Your task to perform on an android device: Open the calendar and show me this week's events Image 0: 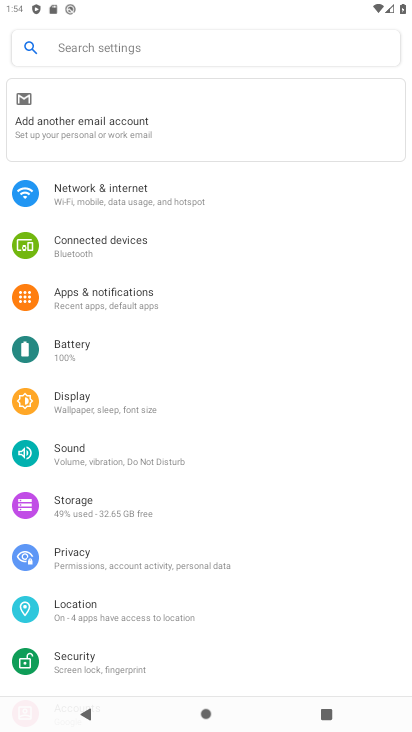
Step 0: press home button
Your task to perform on an android device: Open the calendar and show me this week's events Image 1: 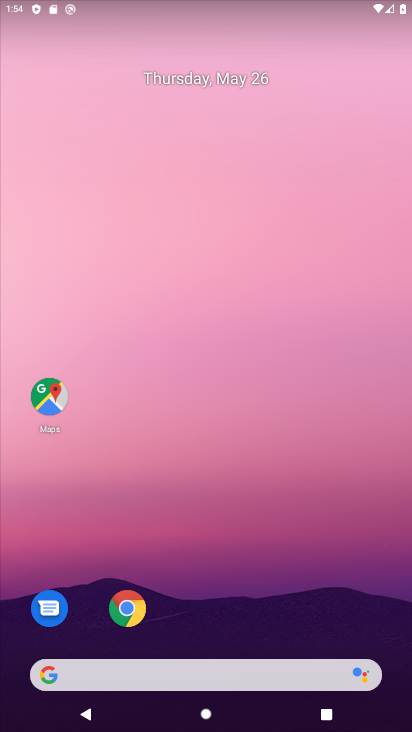
Step 1: drag from (241, 573) to (254, 10)
Your task to perform on an android device: Open the calendar and show me this week's events Image 2: 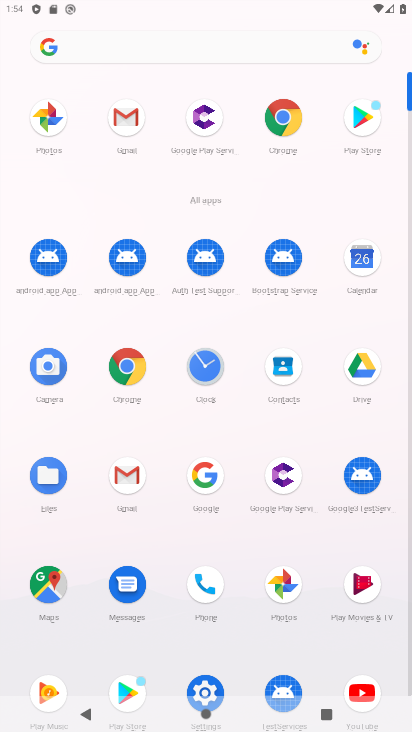
Step 2: click (365, 263)
Your task to perform on an android device: Open the calendar and show me this week's events Image 3: 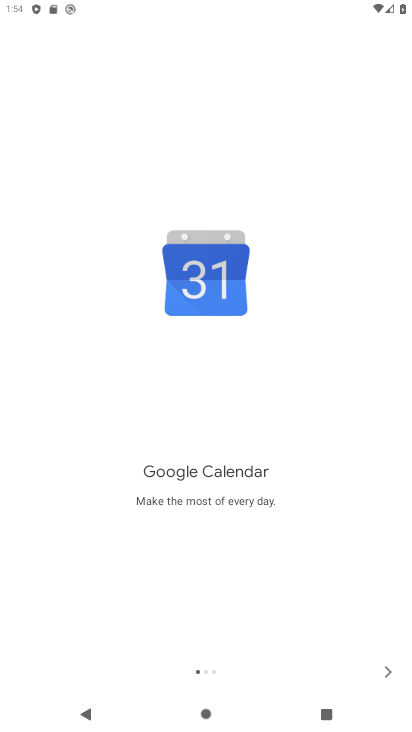
Step 3: click (383, 672)
Your task to perform on an android device: Open the calendar and show me this week's events Image 4: 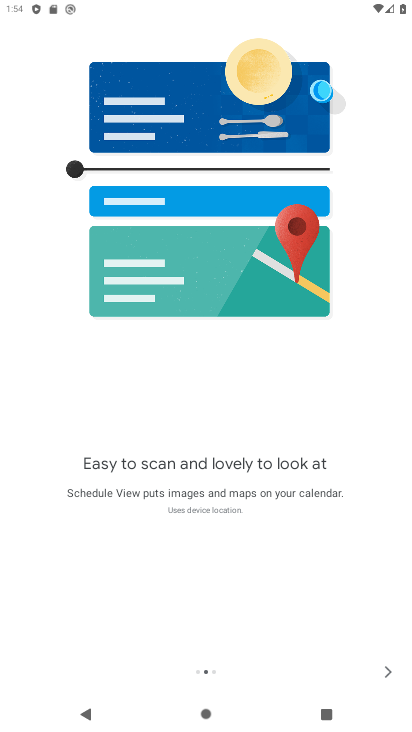
Step 4: click (383, 671)
Your task to perform on an android device: Open the calendar and show me this week's events Image 5: 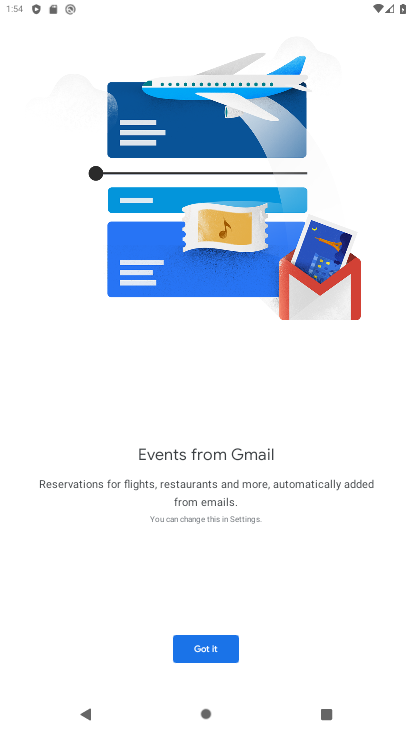
Step 5: click (197, 651)
Your task to perform on an android device: Open the calendar and show me this week's events Image 6: 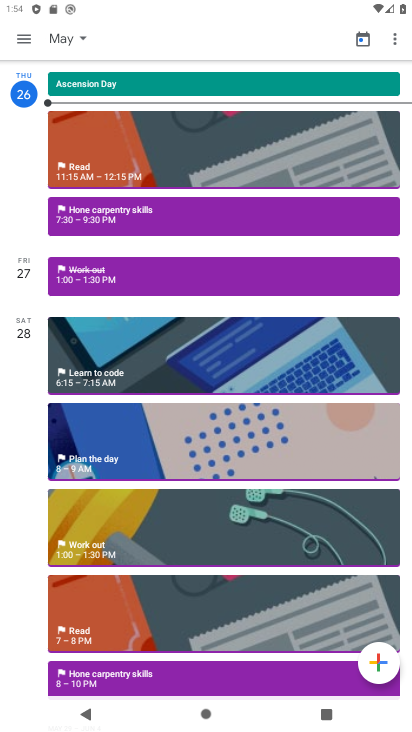
Step 6: click (71, 43)
Your task to perform on an android device: Open the calendar and show me this week's events Image 7: 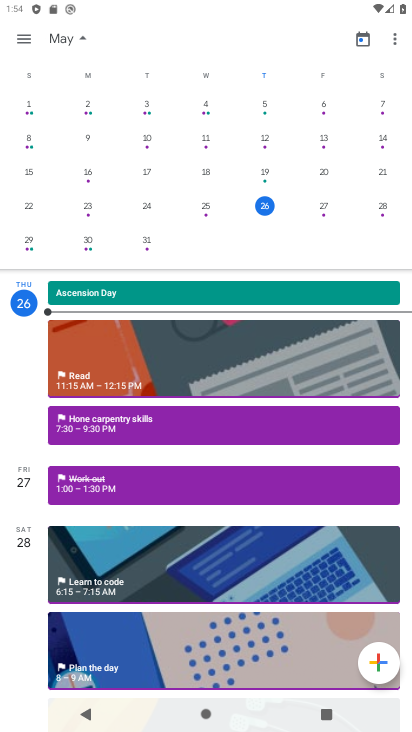
Step 7: click (318, 210)
Your task to perform on an android device: Open the calendar and show me this week's events Image 8: 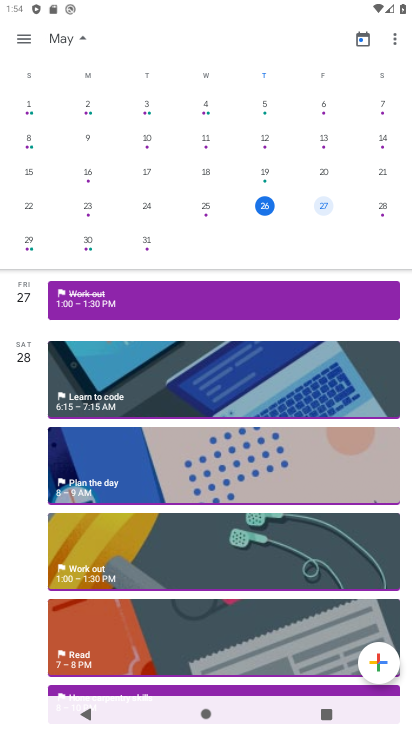
Step 8: task complete